Your task to perform on an android device: change the clock display to show seconds Image 0: 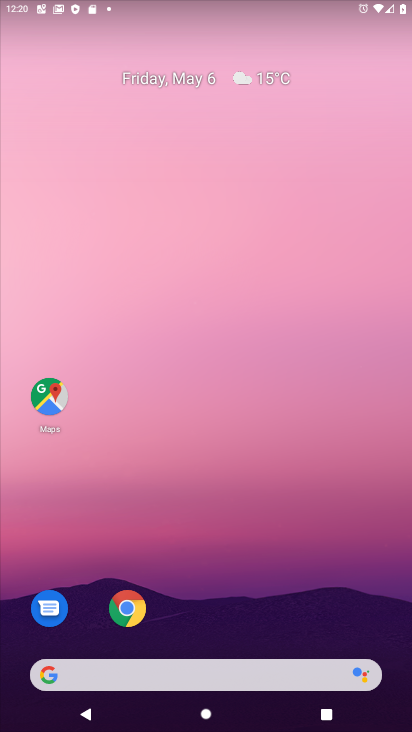
Step 0: drag from (248, 402) to (237, 139)
Your task to perform on an android device: change the clock display to show seconds Image 1: 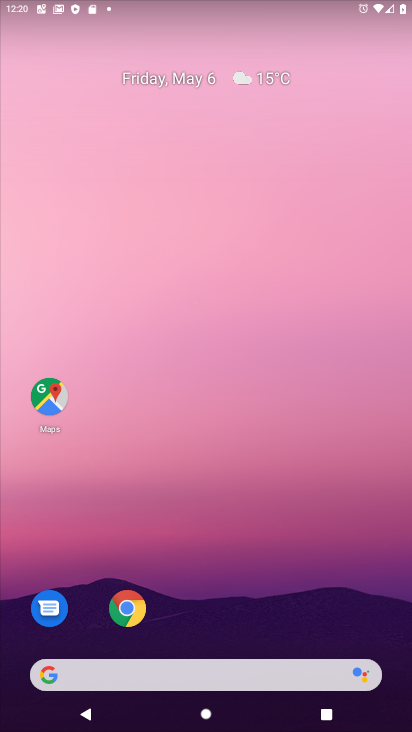
Step 1: drag from (224, 606) to (222, 173)
Your task to perform on an android device: change the clock display to show seconds Image 2: 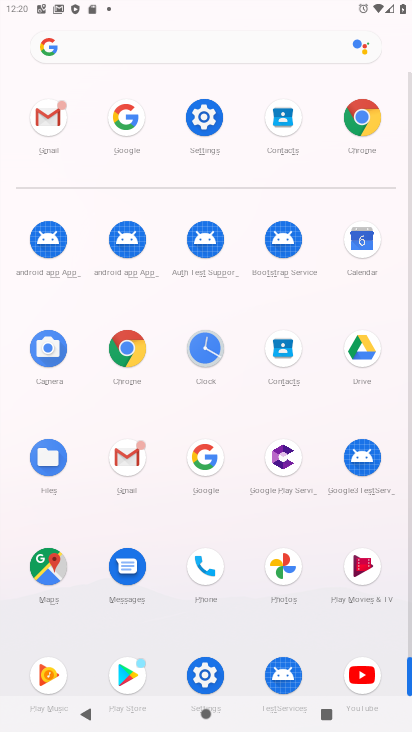
Step 2: click (208, 351)
Your task to perform on an android device: change the clock display to show seconds Image 3: 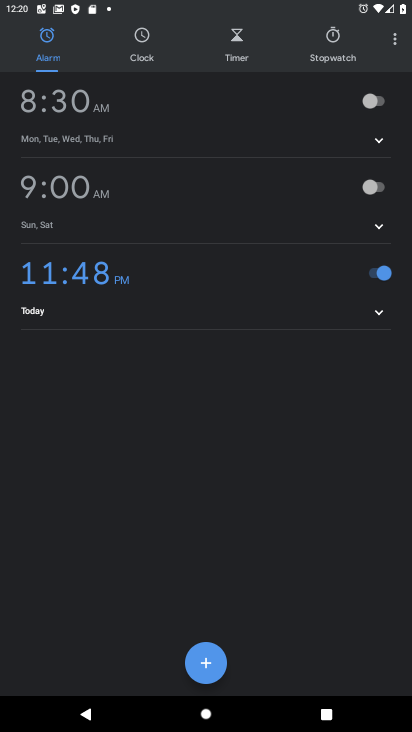
Step 3: click (391, 47)
Your task to perform on an android device: change the clock display to show seconds Image 4: 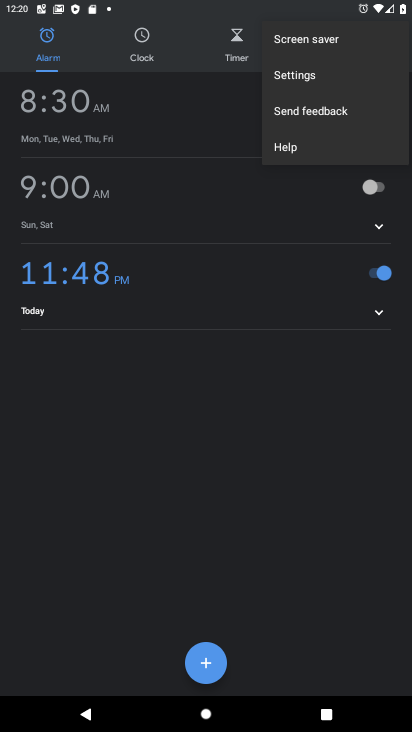
Step 4: click (335, 79)
Your task to perform on an android device: change the clock display to show seconds Image 5: 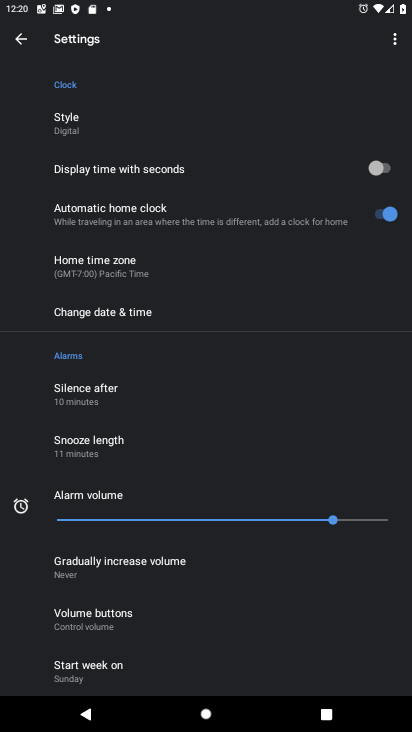
Step 5: click (373, 170)
Your task to perform on an android device: change the clock display to show seconds Image 6: 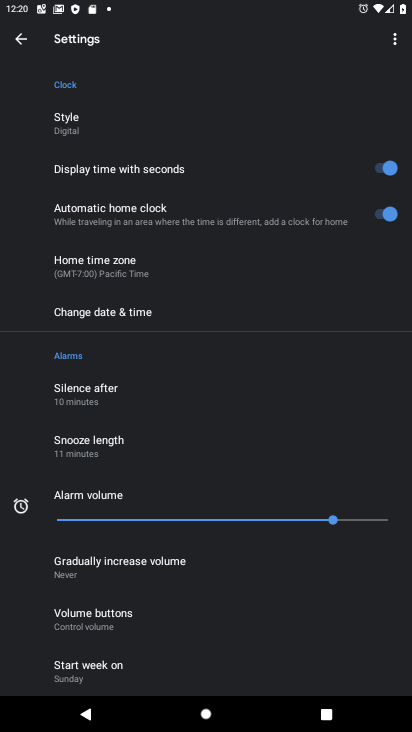
Step 6: task complete